Your task to perform on an android device: toggle improve location accuracy Image 0: 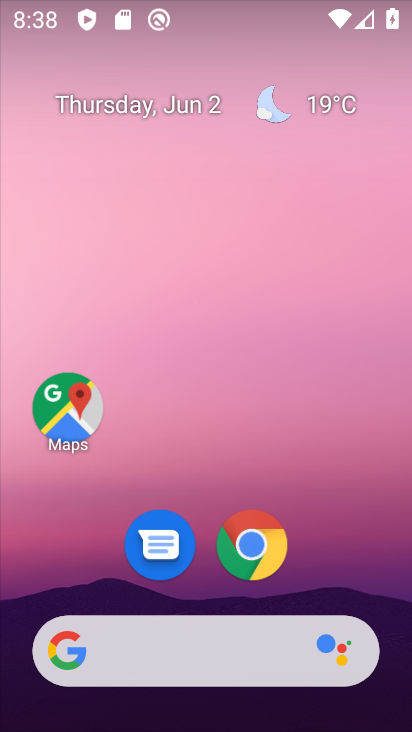
Step 0: drag from (388, 711) to (356, 166)
Your task to perform on an android device: toggle improve location accuracy Image 1: 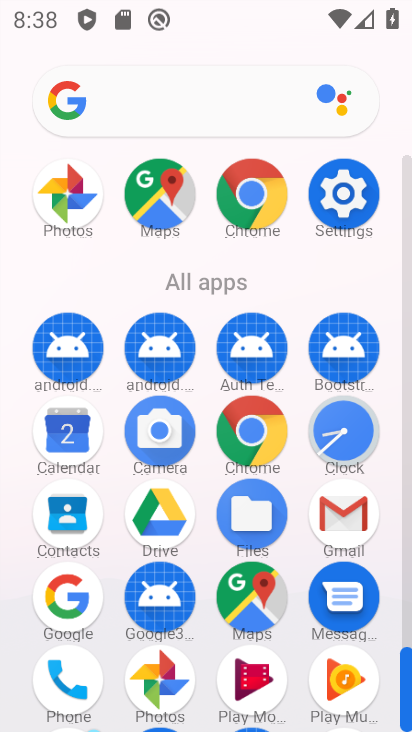
Step 1: click (336, 210)
Your task to perform on an android device: toggle improve location accuracy Image 2: 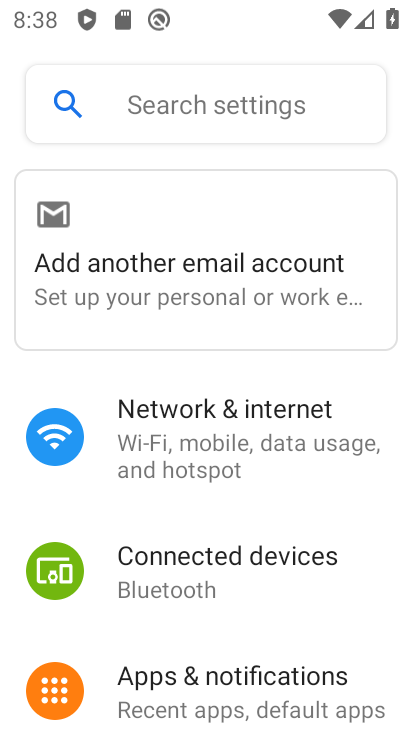
Step 2: drag from (313, 643) to (302, 266)
Your task to perform on an android device: toggle improve location accuracy Image 3: 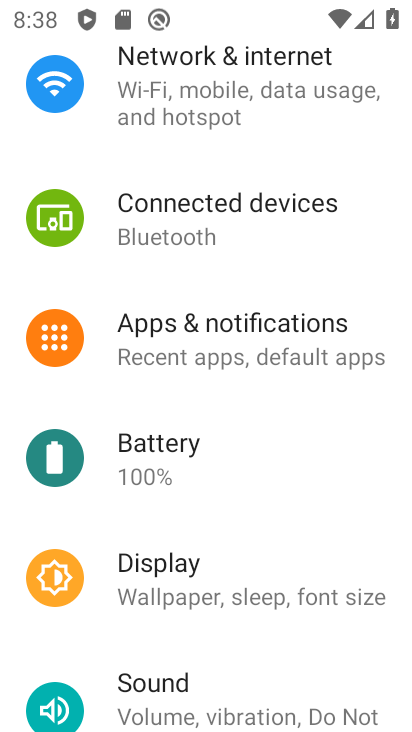
Step 3: drag from (311, 612) to (315, 353)
Your task to perform on an android device: toggle improve location accuracy Image 4: 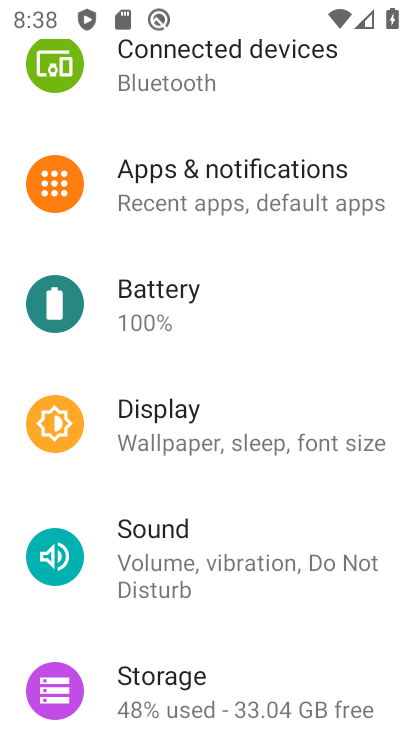
Step 4: drag from (256, 645) to (259, 252)
Your task to perform on an android device: toggle improve location accuracy Image 5: 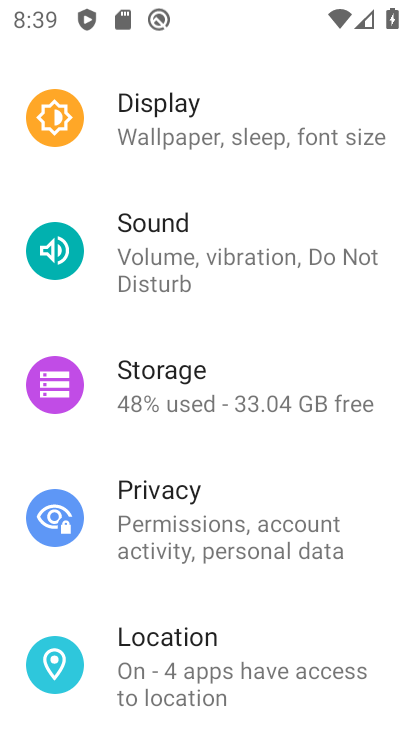
Step 5: click (165, 648)
Your task to perform on an android device: toggle improve location accuracy Image 6: 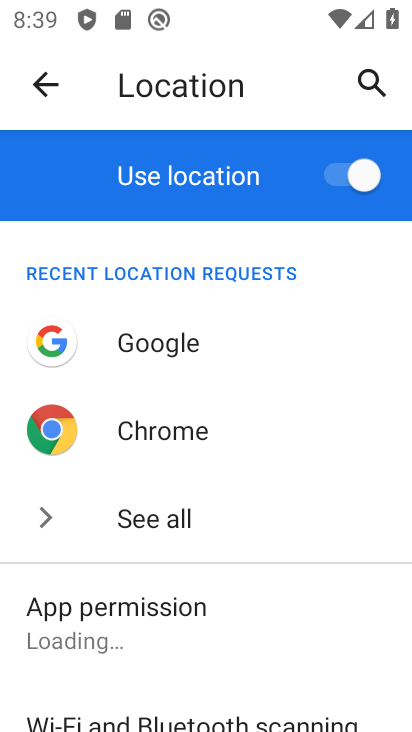
Step 6: click (342, 179)
Your task to perform on an android device: toggle improve location accuracy Image 7: 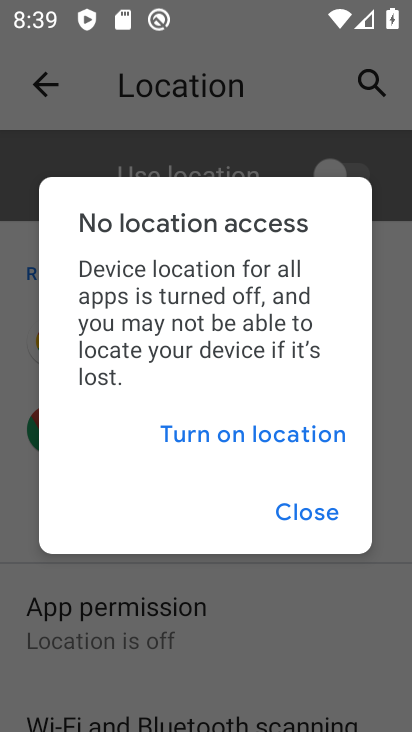
Step 7: click (285, 512)
Your task to perform on an android device: toggle improve location accuracy Image 8: 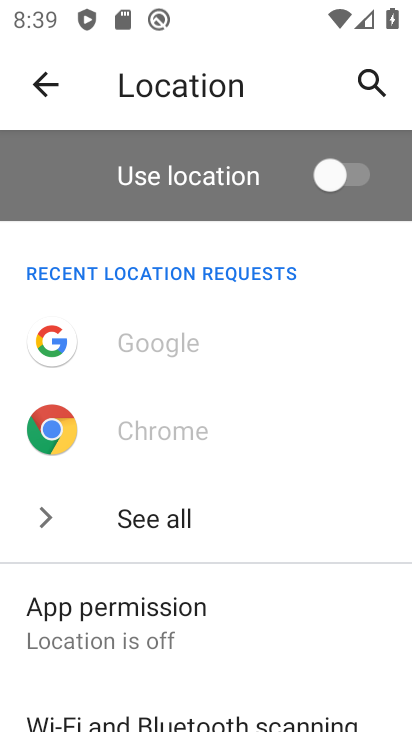
Step 8: task complete